Your task to perform on an android device: change your default location settings in chrome Image 0: 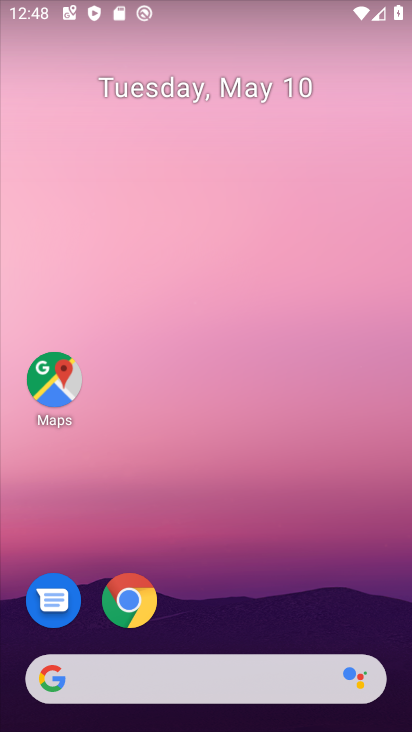
Step 0: click (151, 601)
Your task to perform on an android device: change your default location settings in chrome Image 1: 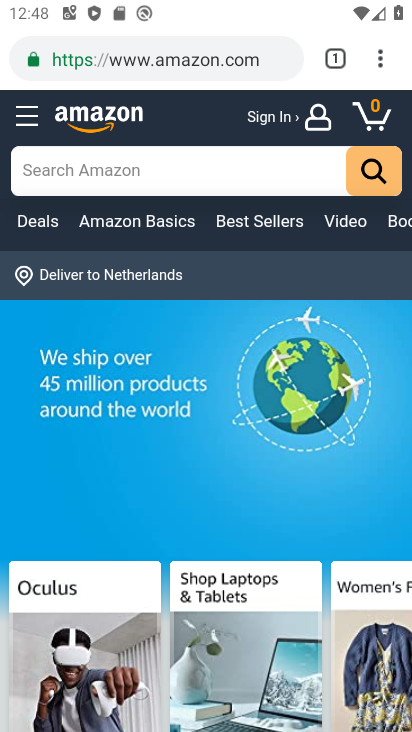
Step 1: click (385, 67)
Your task to perform on an android device: change your default location settings in chrome Image 2: 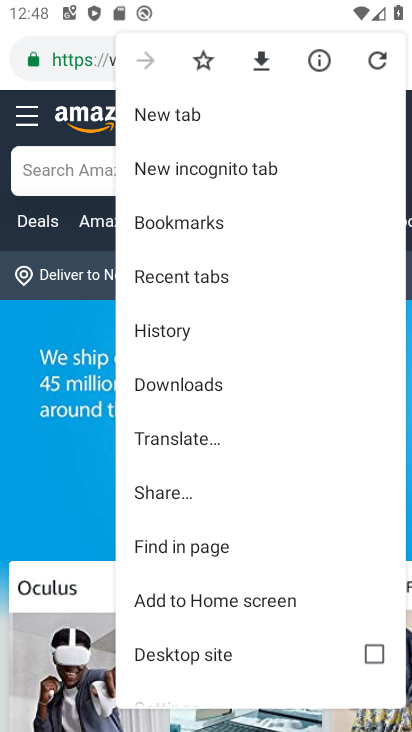
Step 2: drag from (212, 622) to (152, 154)
Your task to perform on an android device: change your default location settings in chrome Image 3: 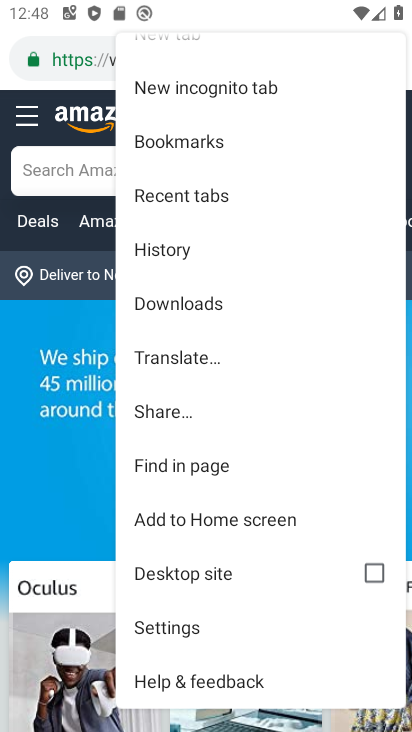
Step 3: click (212, 626)
Your task to perform on an android device: change your default location settings in chrome Image 4: 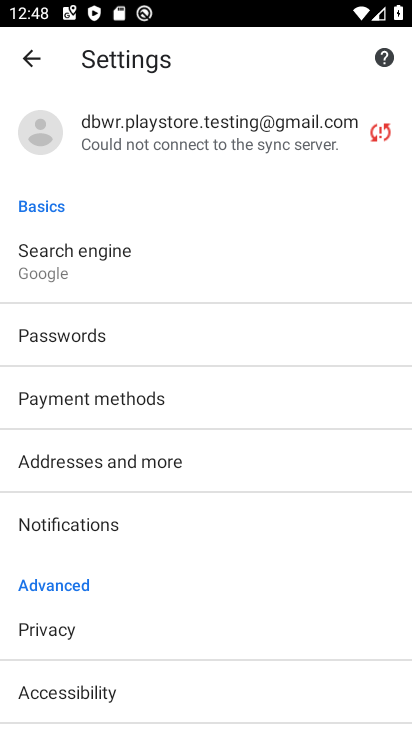
Step 4: drag from (233, 598) to (141, 152)
Your task to perform on an android device: change your default location settings in chrome Image 5: 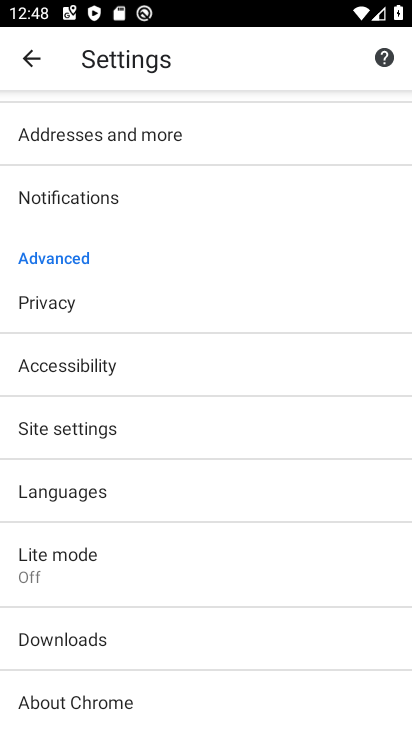
Step 5: click (117, 441)
Your task to perform on an android device: change your default location settings in chrome Image 6: 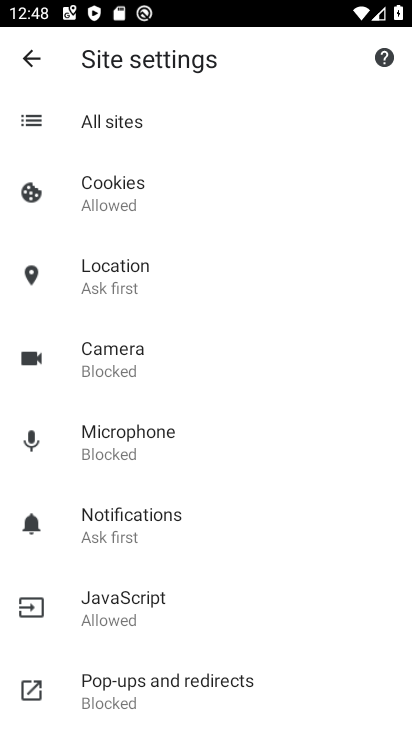
Step 6: click (126, 269)
Your task to perform on an android device: change your default location settings in chrome Image 7: 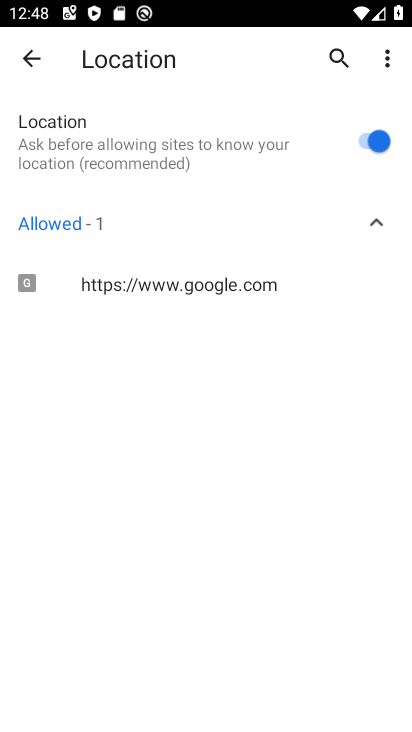
Step 7: click (375, 154)
Your task to perform on an android device: change your default location settings in chrome Image 8: 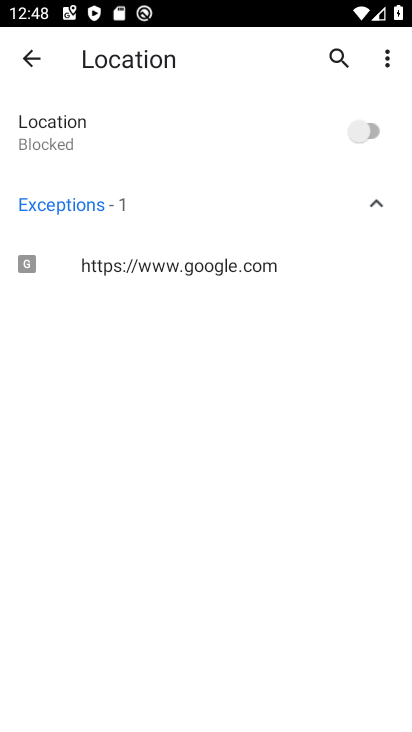
Step 8: task complete